Your task to perform on an android device: Open Chrome and go to the settings page Image 0: 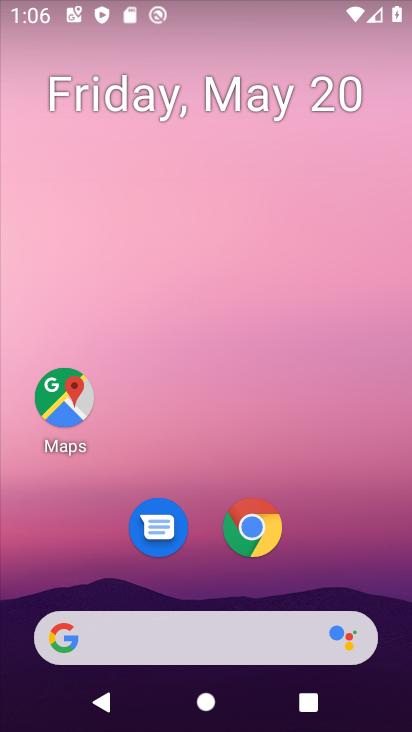
Step 0: press home button
Your task to perform on an android device: Open Chrome and go to the settings page Image 1: 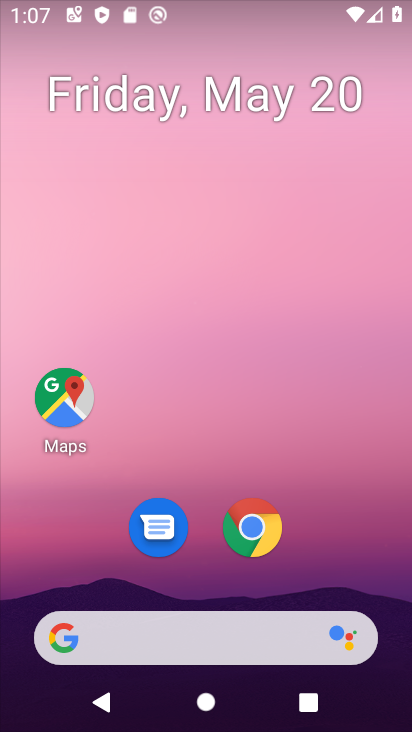
Step 1: click (251, 534)
Your task to perform on an android device: Open Chrome and go to the settings page Image 2: 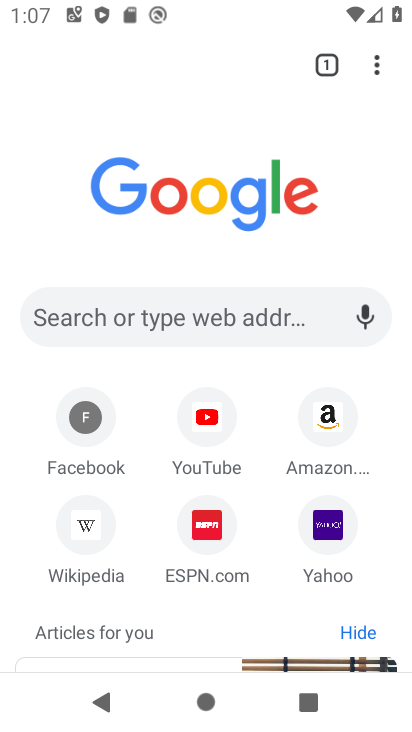
Step 2: task complete